Your task to perform on an android device: What's the weather? Image 0: 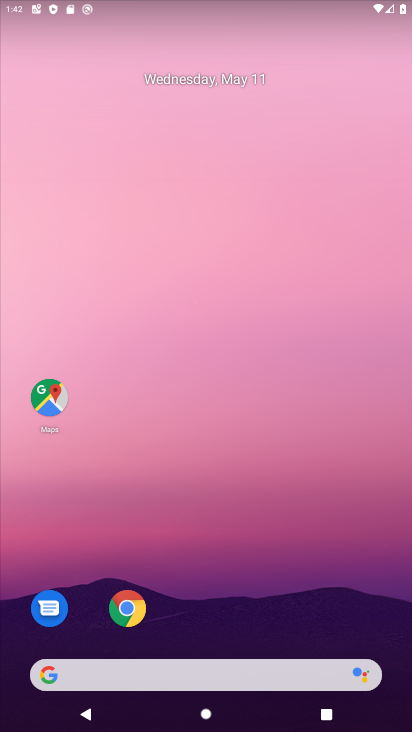
Step 0: drag from (266, 556) to (271, 286)
Your task to perform on an android device: What's the weather? Image 1: 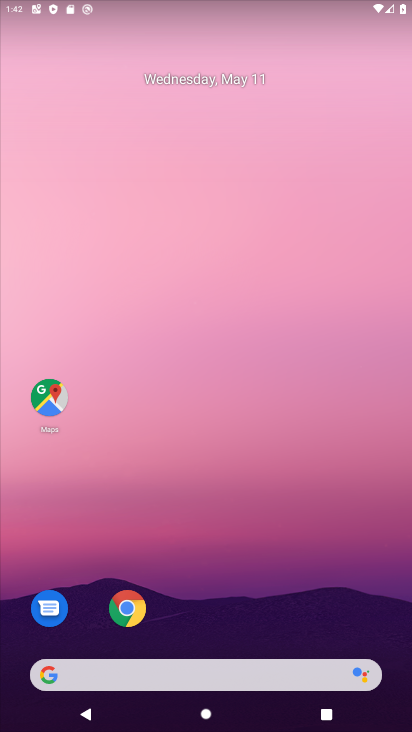
Step 1: task complete